Your task to perform on an android device: install app "Viber Messenger" Image 0: 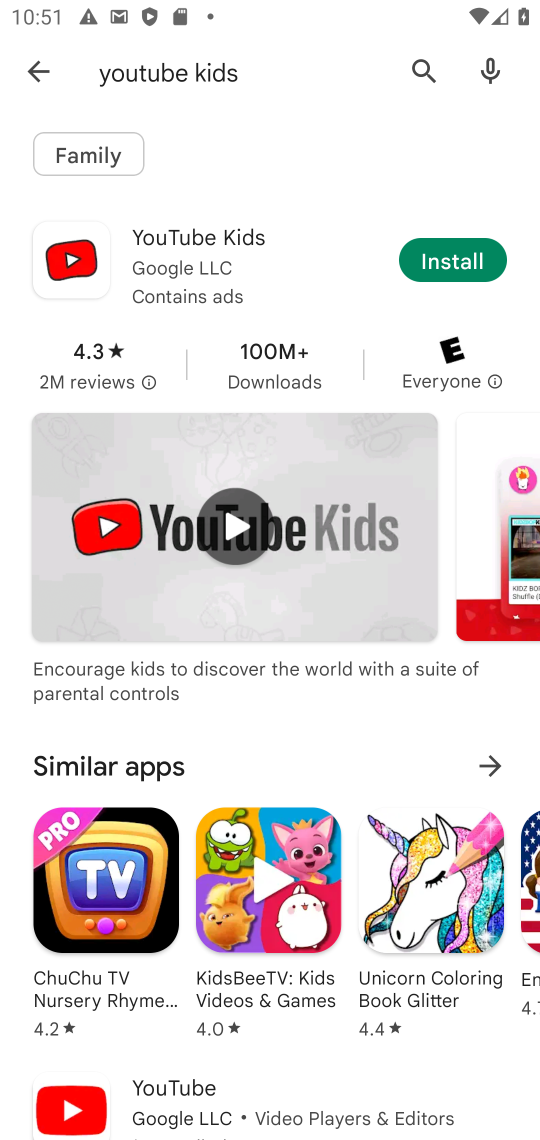
Step 0: press home button
Your task to perform on an android device: install app "Viber Messenger" Image 1: 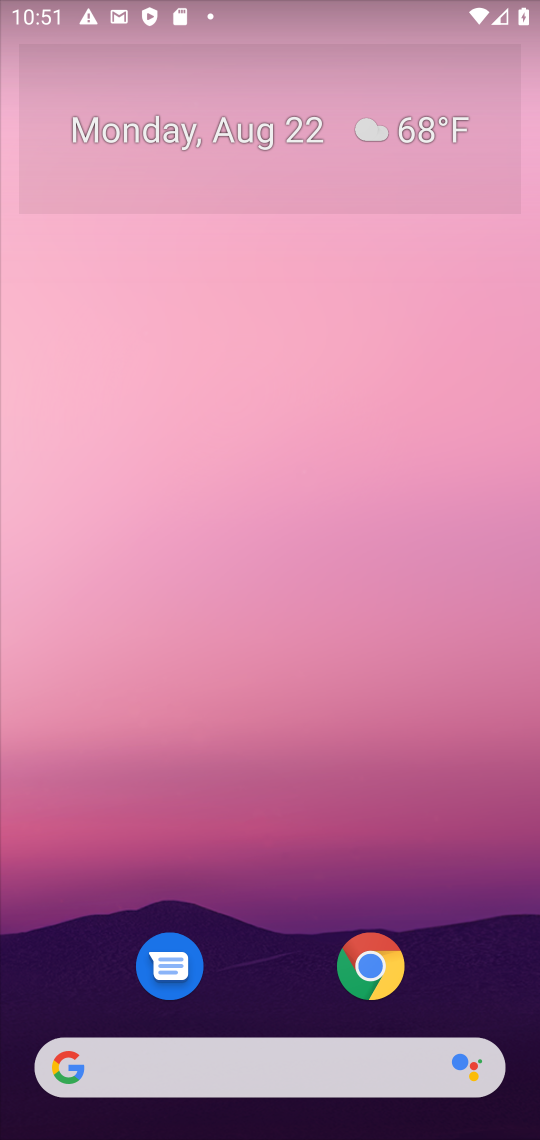
Step 1: drag from (482, 837) to (482, 52)
Your task to perform on an android device: install app "Viber Messenger" Image 2: 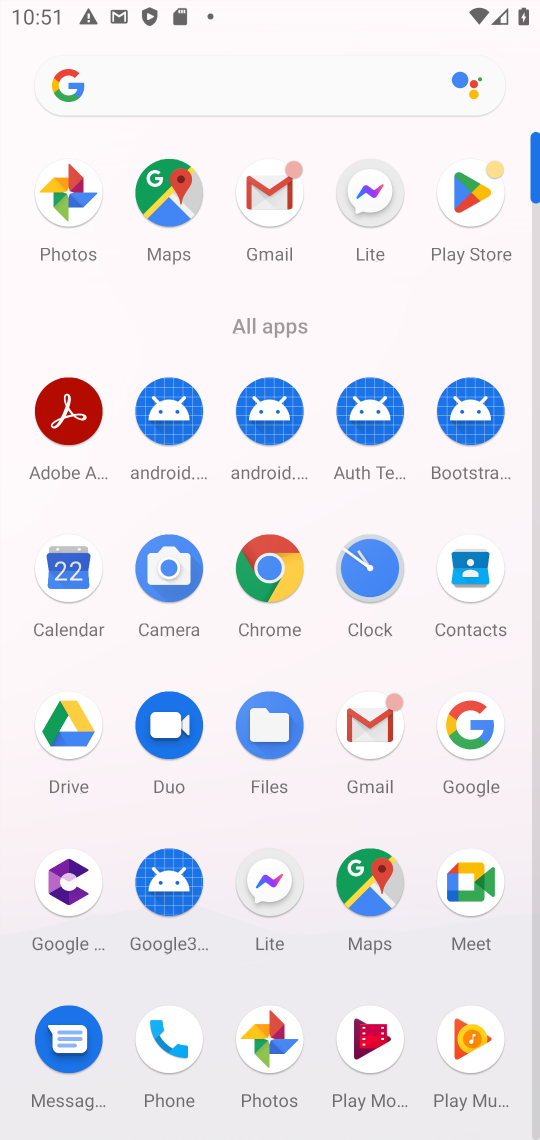
Step 2: click (467, 188)
Your task to perform on an android device: install app "Viber Messenger" Image 3: 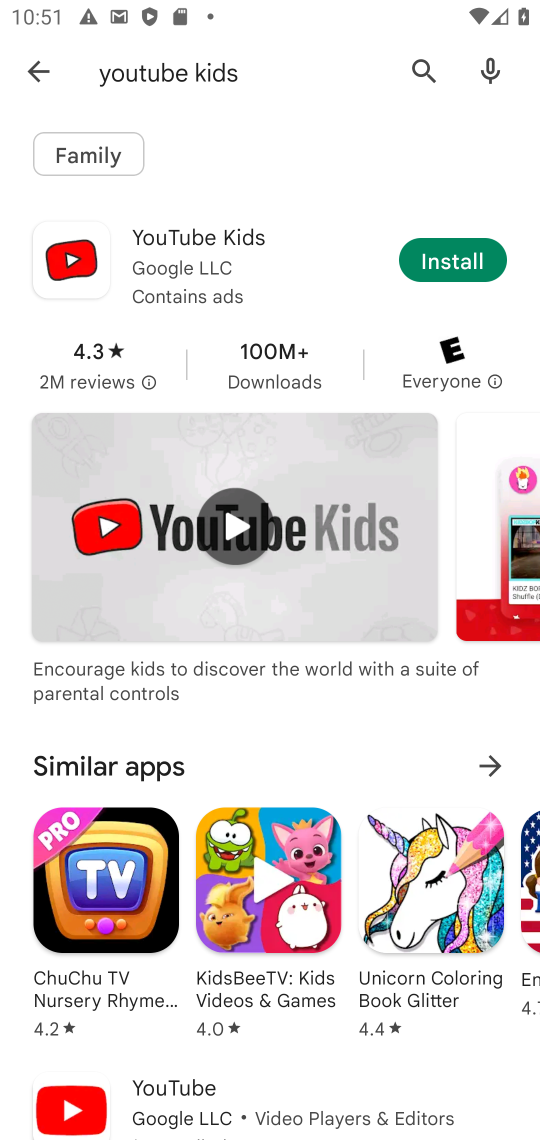
Step 3: press back button
Your task to perform on an android device: install app "Viber Messenger" Image 4: 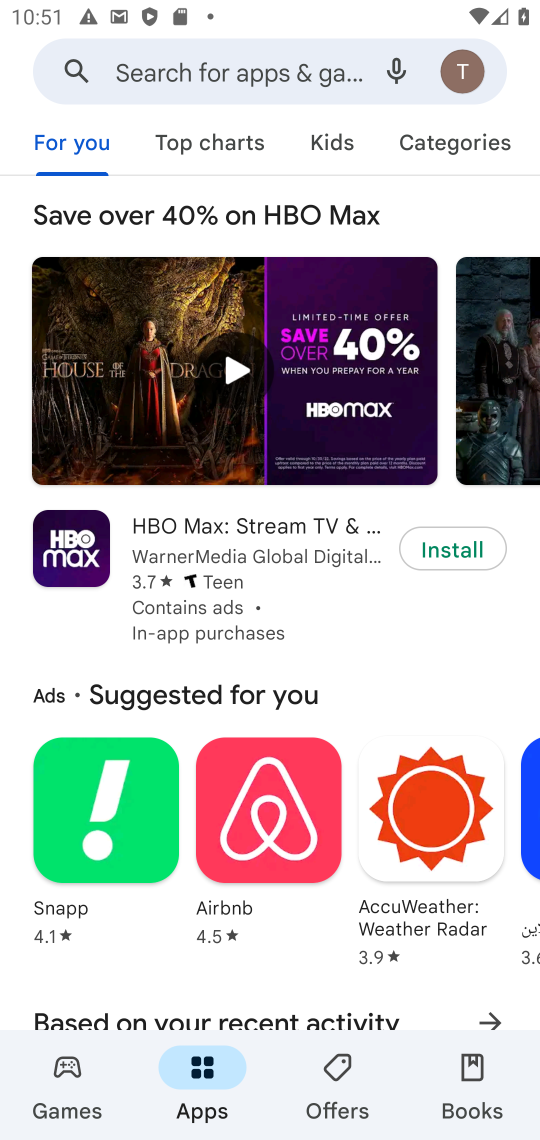
Step 4: click (267, 57)
Your task to perform on an android device: install app "Viber Messenger" Image 5: 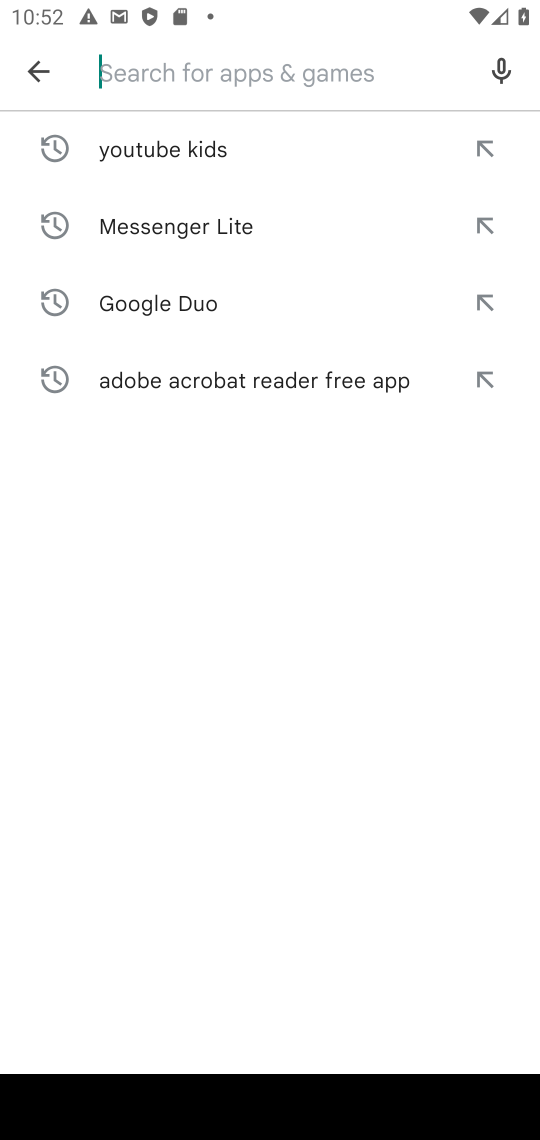
Step 5: type "Viber Messenger"
Your task to perform on an android device: install app "Viber Messenger" Image 6: 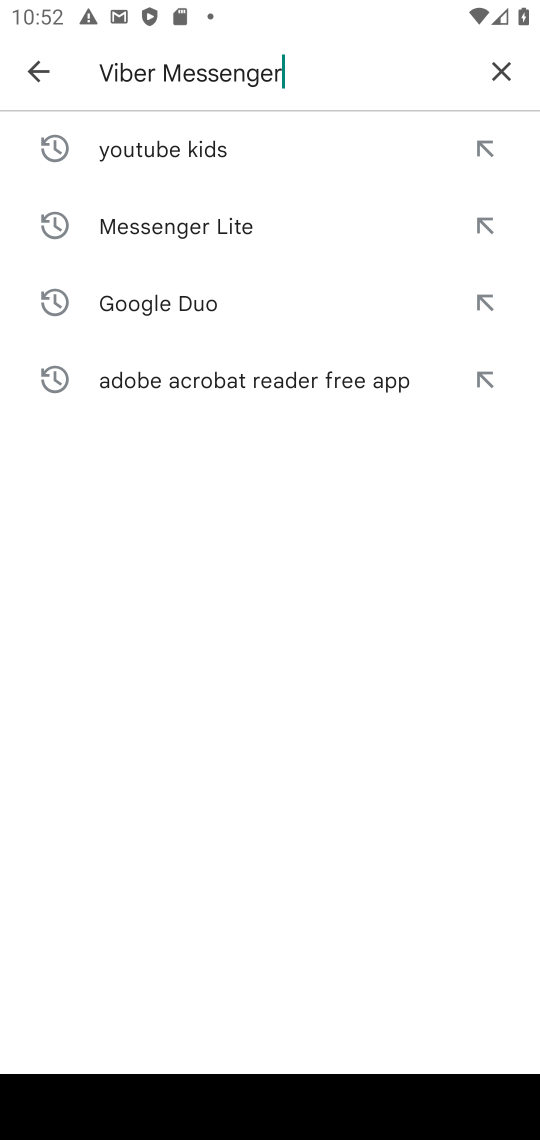
Step 6: press enter
Your task to perform on an android device: install app "Viber Messenger" Image 7: 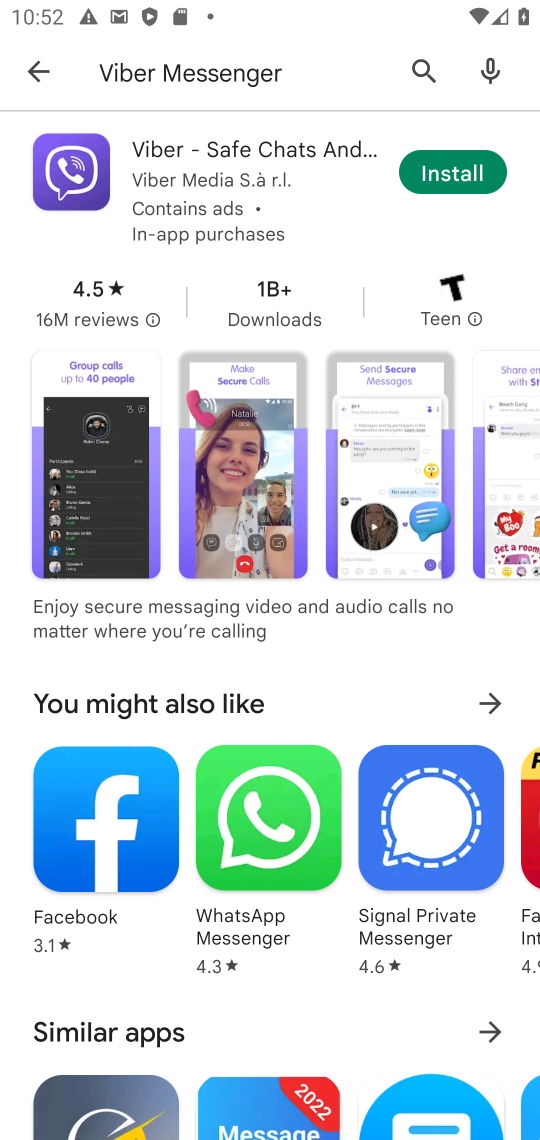
Step 7: click (448, 168)
Your task to perform on an android device: install app "Viber Messenger" Image 8: 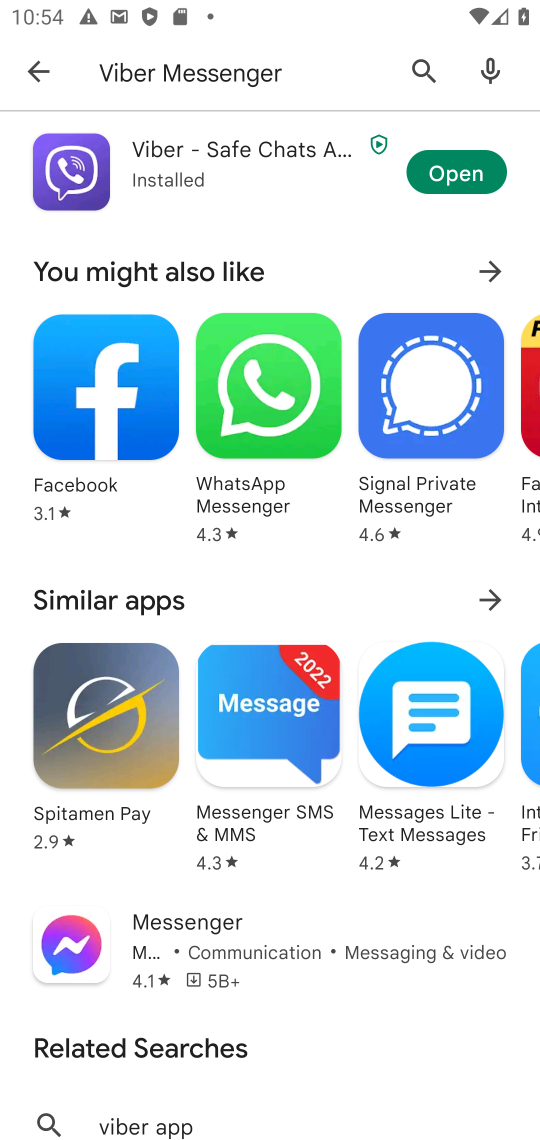
Step 8: task complete